Your task to perform on an android device: check out phone information Image 0: 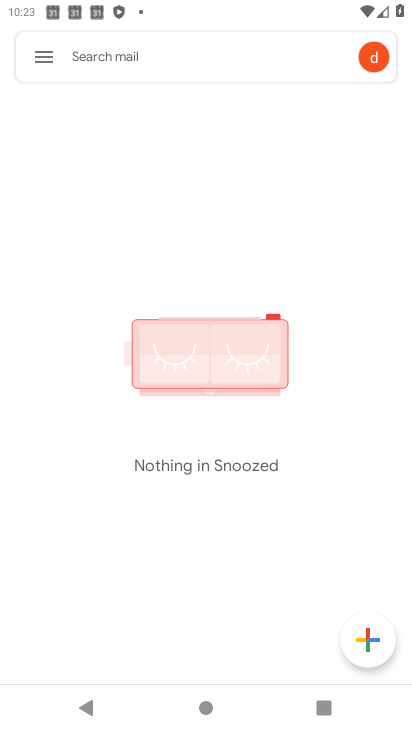
Step 0: press home button
Your task to perform on an android device: check out phone information Image 1: 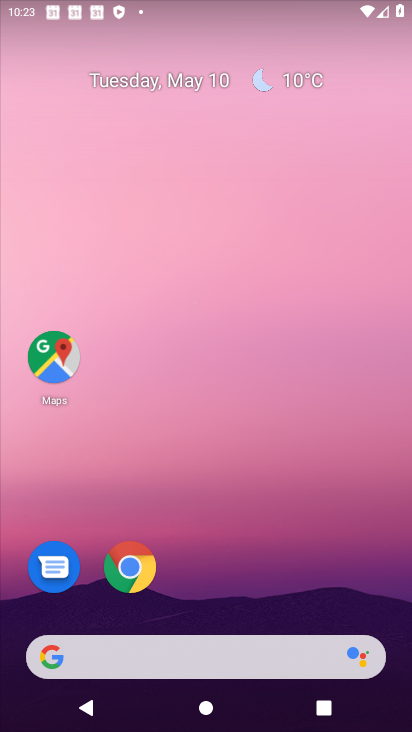
Step 1: drag from (169, 619) to (112, 2)
Your task to perform on an android device: check out phone information Image 2: 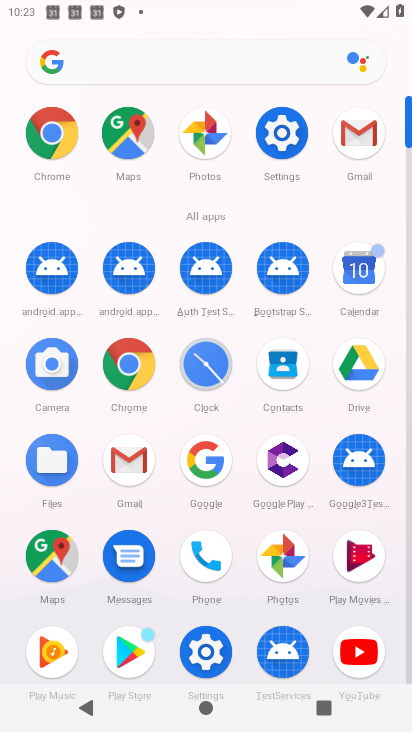
Step 2: click (290, 143)
Your task to perform on an android device: check out phone information Image 3: 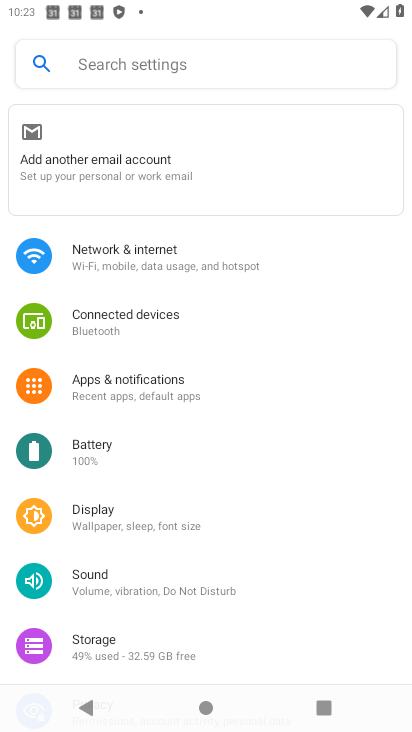
Step 3: drag from (252, 651) to (197, 259)
Your task to perform on an android device: check out phone information Image 4: 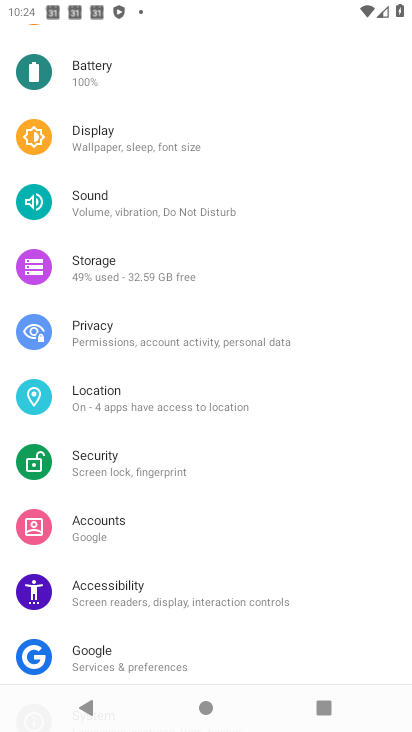
Step 4: drag from (189, 657) to (188, 236)
Your task to perform on an android device: check out phone information Image 5: 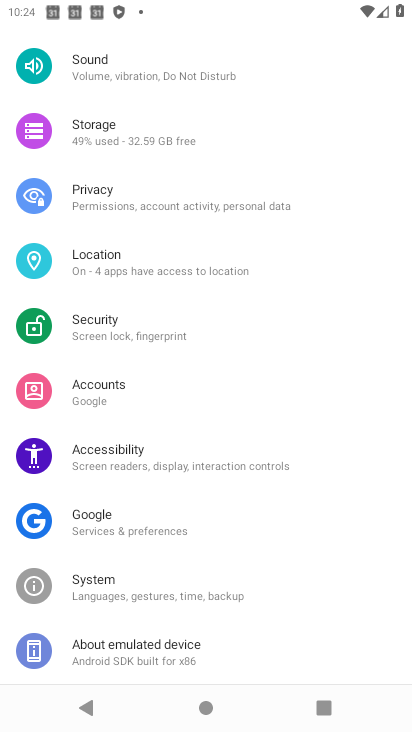
Step 5: click (179, 656)
Your task to perform on an android device: check out phone information Image 6: 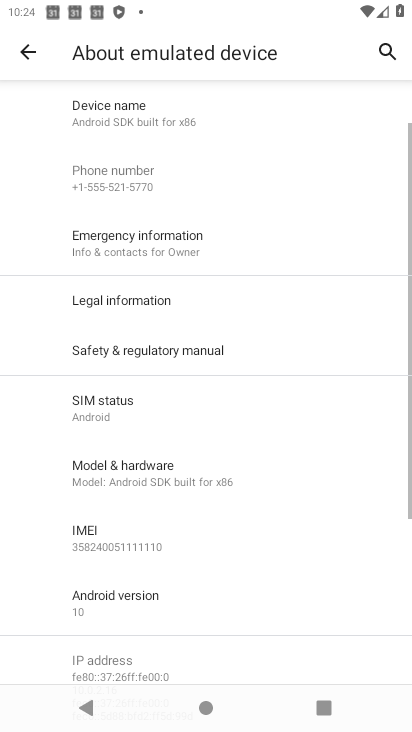
Step 6: task complete